Your task to perform on an android device: Open eBay Image 0: 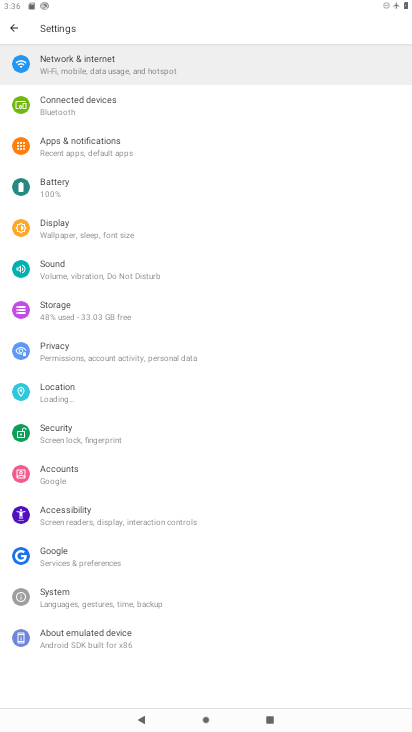
Step 0: press home button
Your task to perform on an android device: Open eBay Image 1: 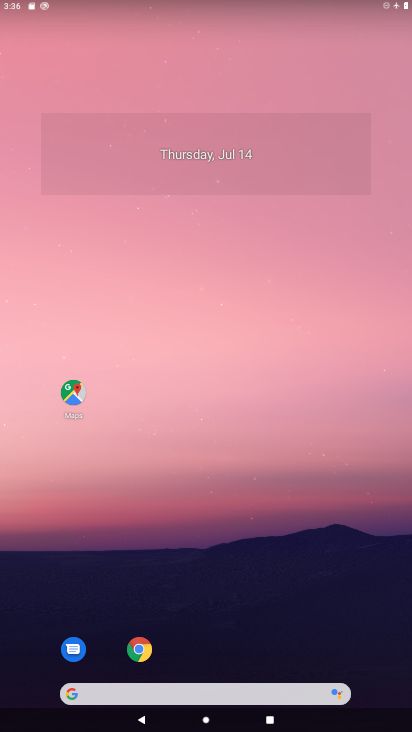
Step 1: drag from (246, 587) to (222, 183)
Your task to perform on an android device: Open eBay Image 2: 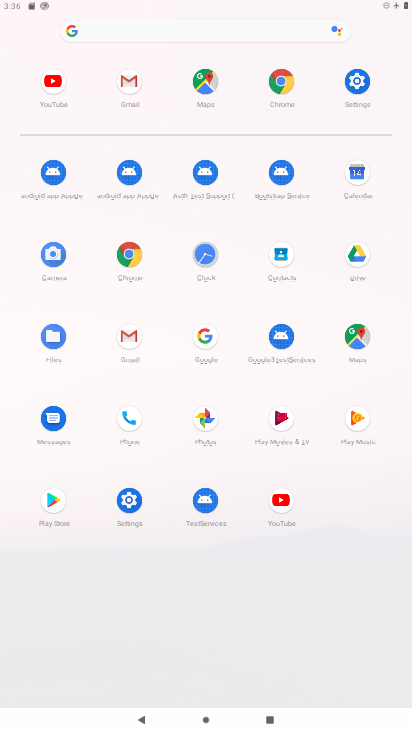
Step 2: click (278, 85)
Your task to perform on an android device: Open eBay Image 3: 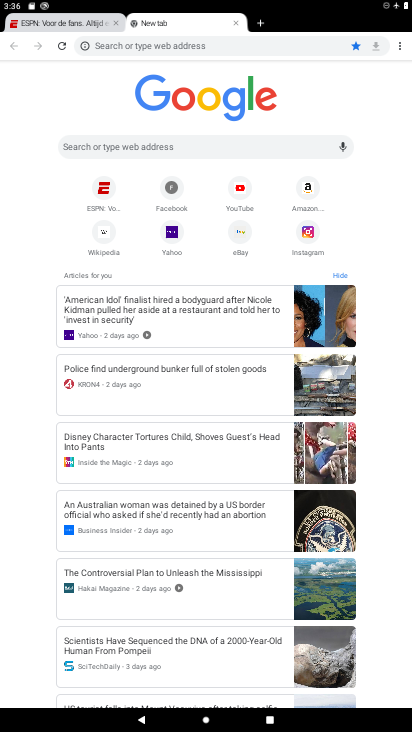
Step 3: click (232, 227)
Your task to perform on an android device: Open eBay Image 4: 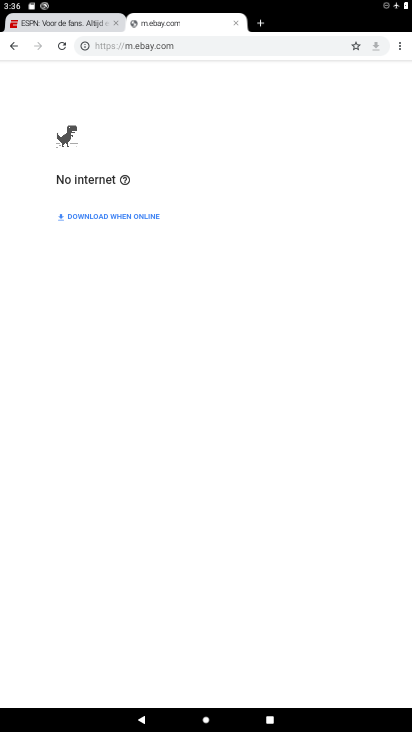
Step 4: task complete